Your task to perform on an android device: Open the calendar app, open the side menu, and click the "Day" option Image 0: 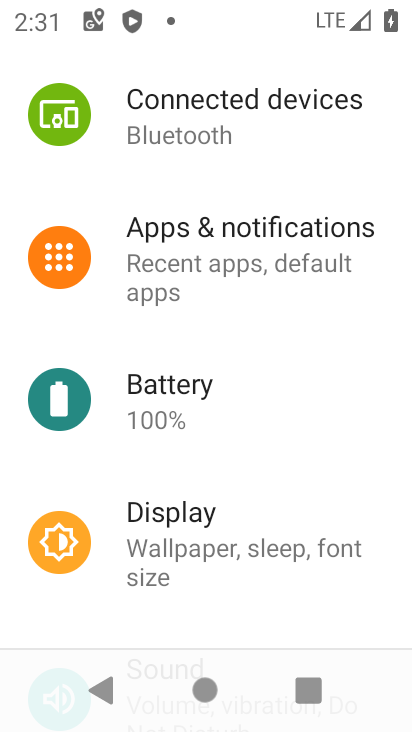
Step 0: press home button
Your task to perform on an android device: Open the calendar app, open the side menu, and click the "Day" option Image 1: 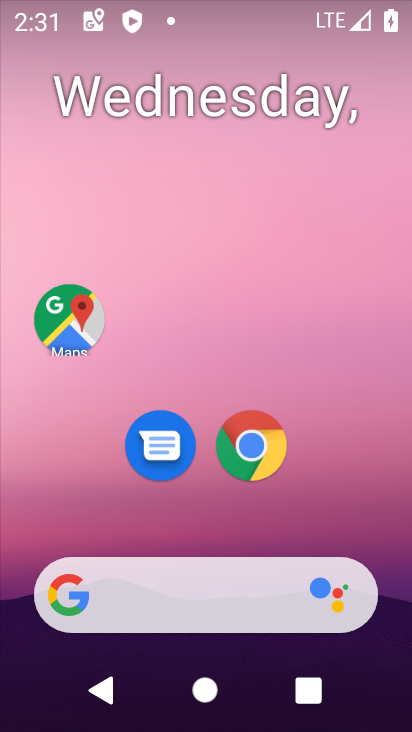
Step 1: drag from (199, 528) to (244, 152)
Your task to perform on an android device: Open the calendar app, open the side menu, and click the "Day" option Image 2: 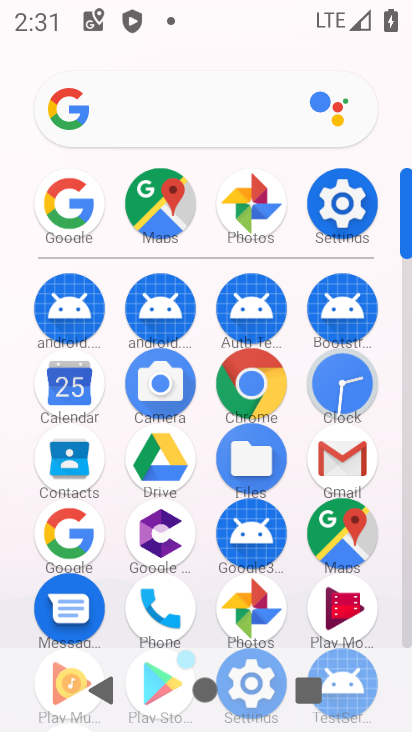
Step 2: click (82, 393)
Your task to perform on an android device: Open the calendar app, open the side menu, and click the "Day" option Image 3: 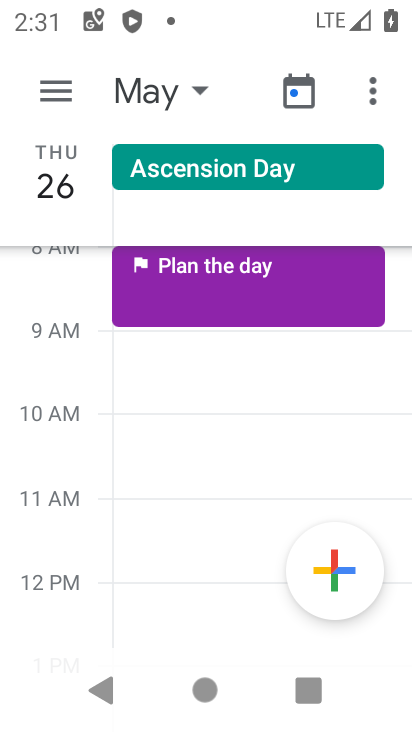
Step 3: click (48, 72)
Your task to perform on an android device: Open the calendar app, open the side menu, and click the "Day" option Image 4: 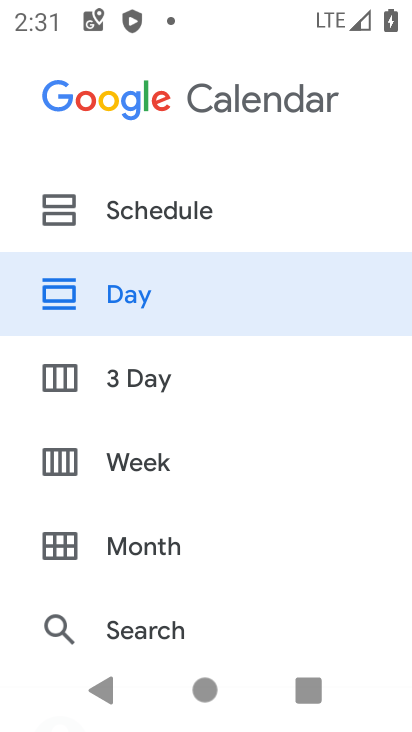
Step 4: click (180, 288)
Your task to perform on an android device: Open the calendar app, open the side menu, and click the "Day" option Image 5: 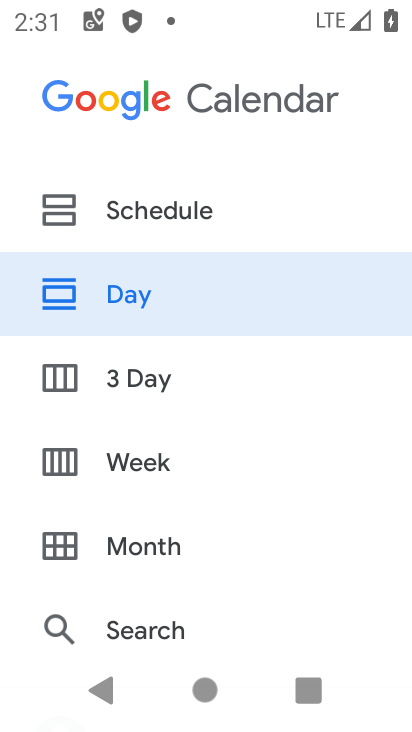
Step 5: task complete